Your task to perform on an android device: star an email in the gmail app Image 0: 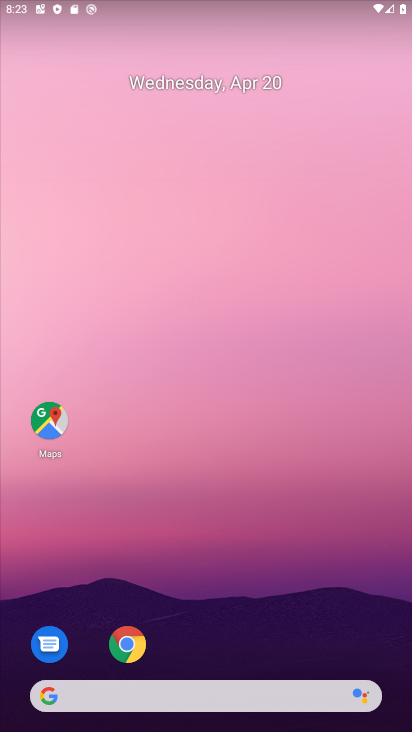
Step 0: drag from (322, 467) to (216, 98)
Your task to perform on an android device: star an email in the gmail app Image 1: 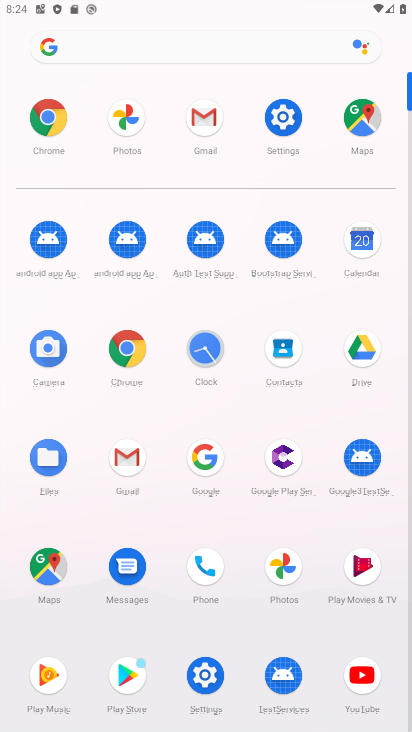
Step 1: click (123, 462)
Your task to perform on an android device: star an email in the gmail app Image 2: 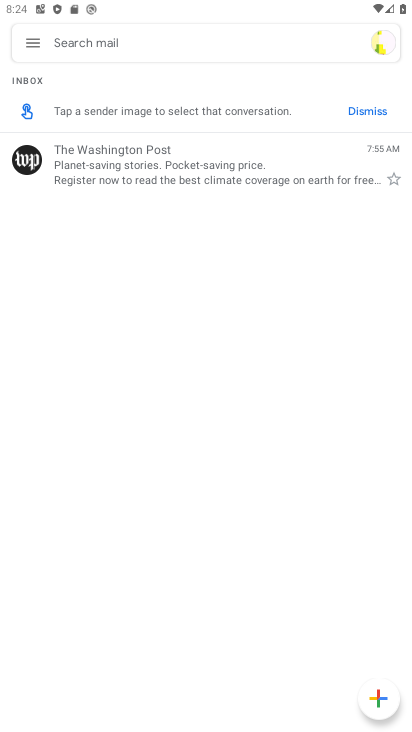
Step 2: click (391, 175)
Your task to perform on an android device: star an email in the gmail app Image 3: 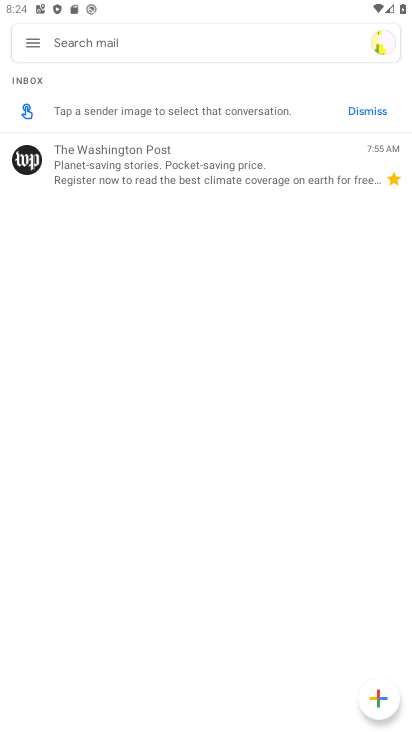
Step 3: task complete